Your task to perform on an android device: set an alarm Image 0: 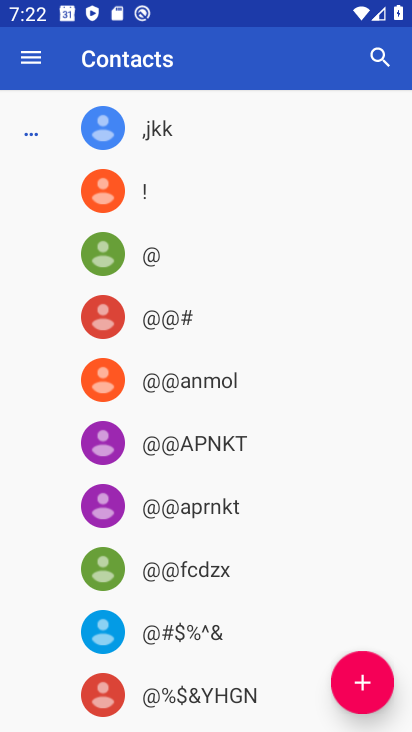
Step 0: press back button
Your task to perform on an android device: set an alarm Image 1: 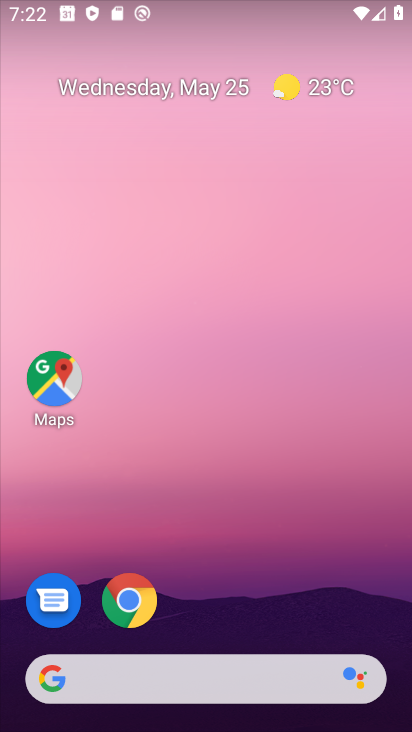
Step 1: drag from (279, 607) to (237, 61)
Your task to perform on an android device: set an alarm Image 2: 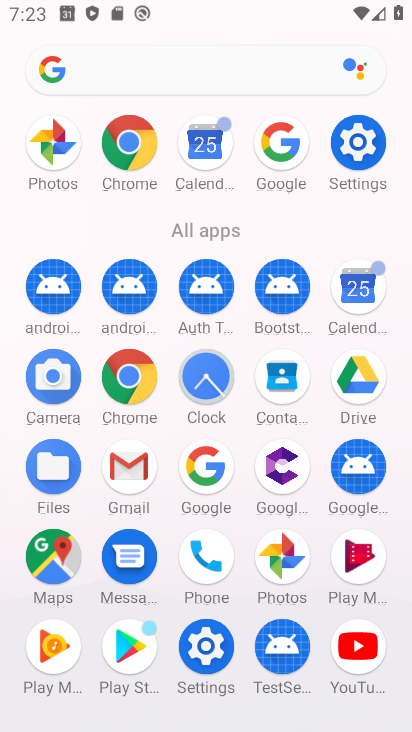
Step 2: click (205, 375)
Your task to perform on an android device: set an alarm Image 3: 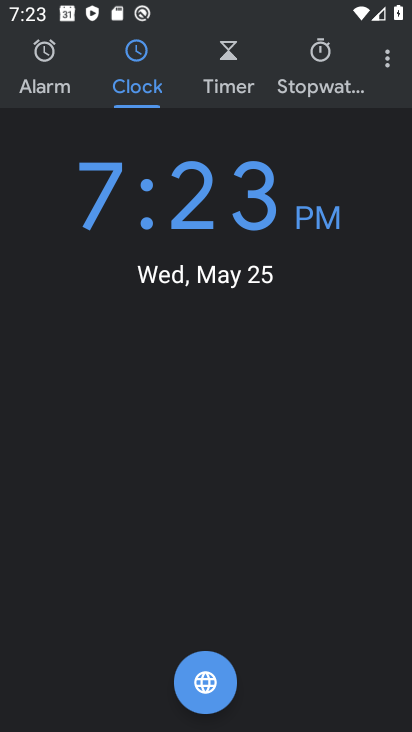
Step 3: click (47, 56)
Your task to perform on an android device: set an alarm Image 4: 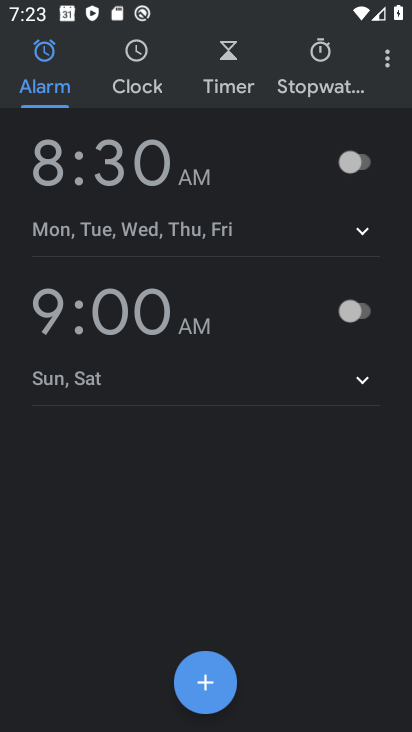
Step 4: click (205, 682)
Your task to perform on an android device: set an alarm Image 5: 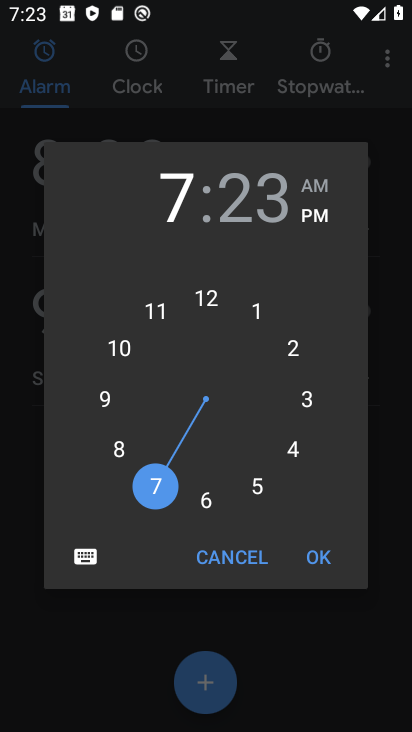
Step 5: click (207, 504)
Your task to perform on an android device: set an alarm Image 6: 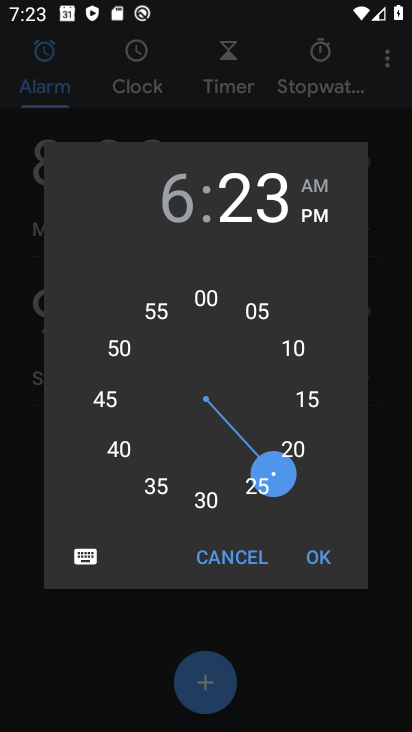
Step 6: click (176, 321)
Your task to perform on an android device: set an alarm Image 7: 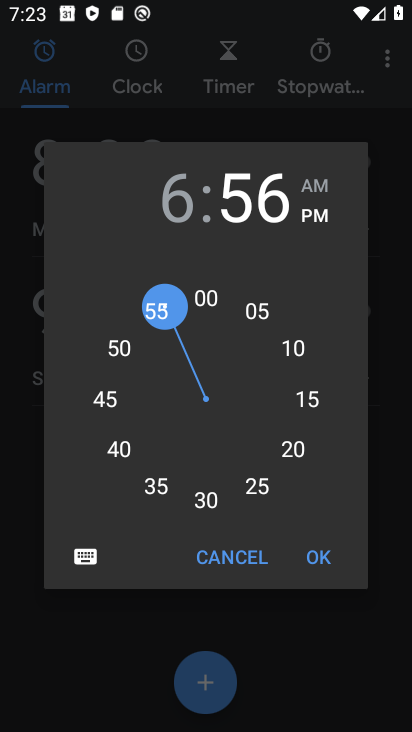
Step 7: click (324, 551)
Your task to perform on an android device: set an alarm Image 8: 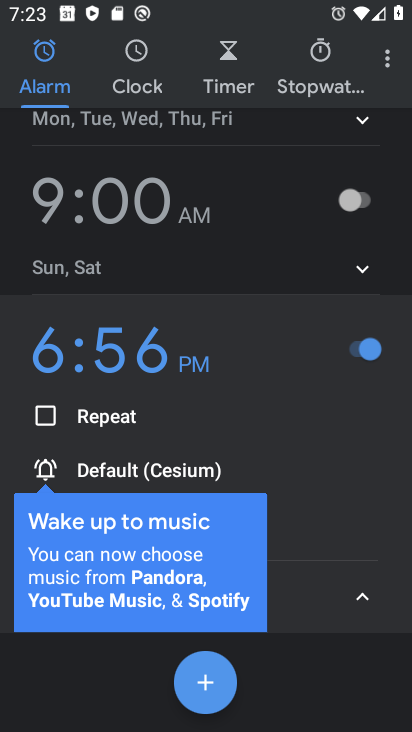
Step 8: click (359, 595)
Your task to perform on an android device: set an alarm Image 9: 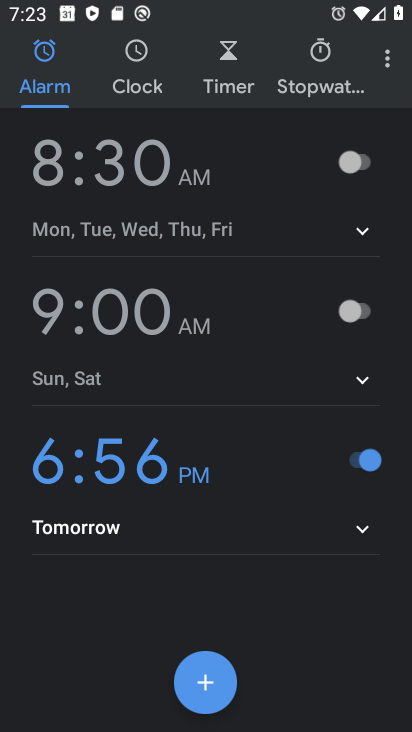
Step 9: task complete